Your task to perform on an android device: turn on translation in the chrome app Image 0: 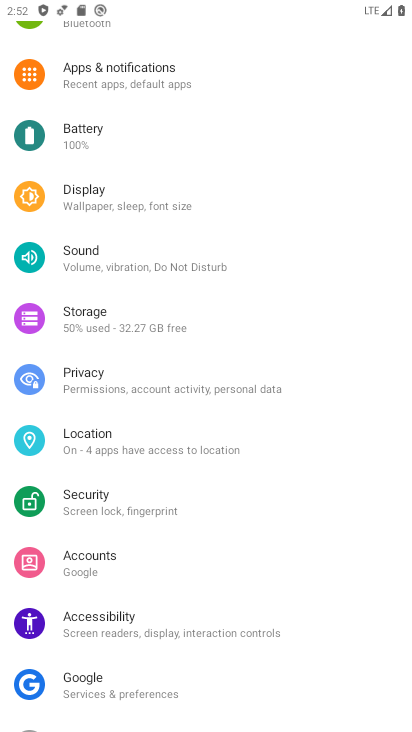
Step 0: press home button
Your task to perform on an android device: turn on translation in the chrome app Image 1: 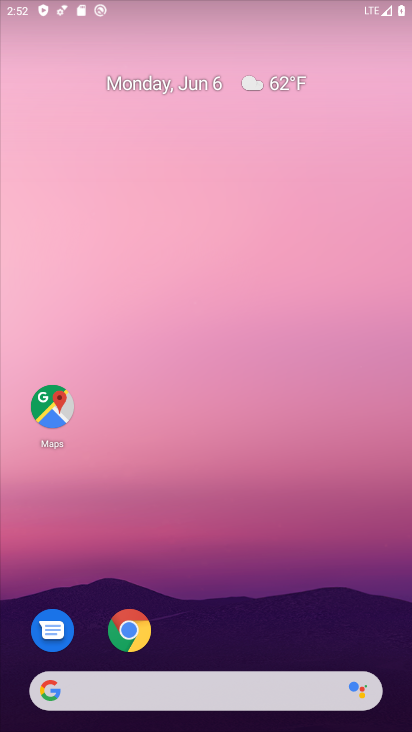
Step 1: click (120, 626)
Your task to perform on an android device: turn on translation in the chrome app Image 2: 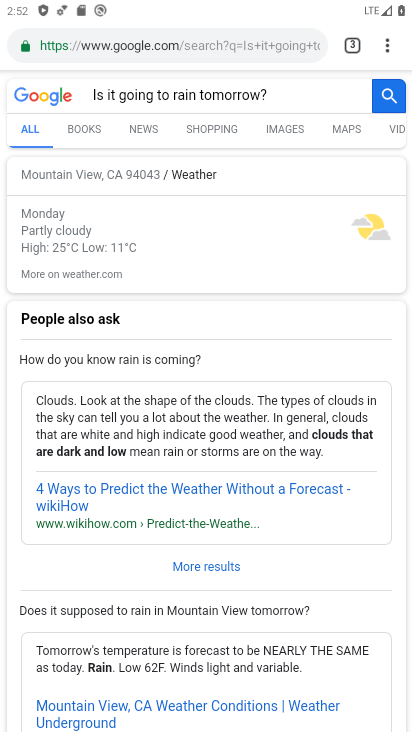
Step 2: drag from (394, 55) to (224, 522)
Your task to perform on an android device: turn on translation in the chrome app Image 3: 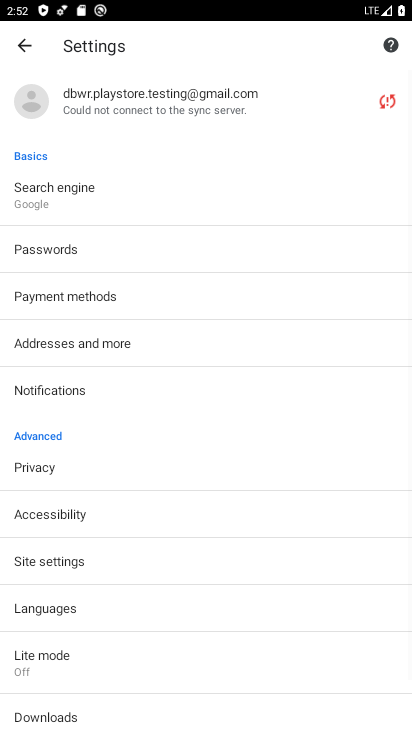
Step 3: drag from (142, 616) to (159, 529)
Your task to perform on an android device: turn on translation in the chrome app Image 4: 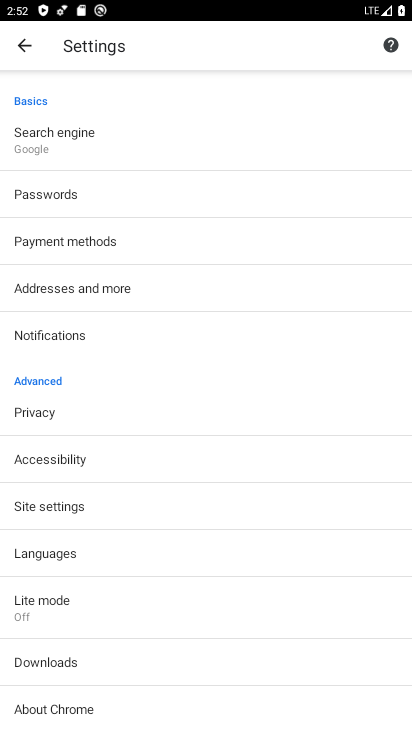
Step 4: click (57, 554)
Your task to perform on an android device: turn on translation in the chrome app Image 5: 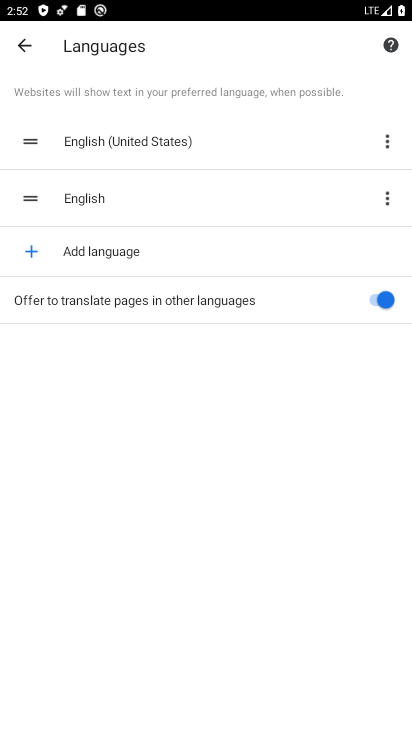
Step 5: task complete